Your task to perform on an android device: allow notifications from all sites in the chrome app Image 0: 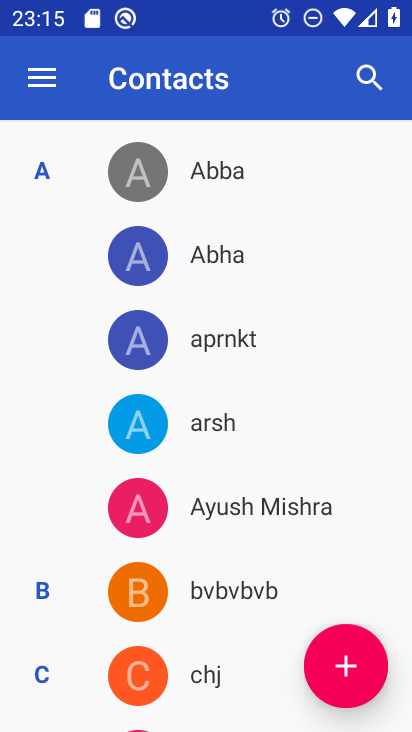
Step 0: press home button
Your task to perform on an android device: allow notifications from all sites in the chrome app Image 1: 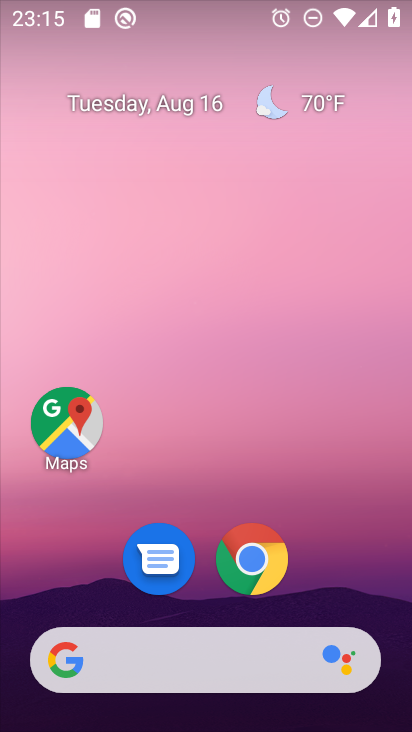
Step 1: click (255, 559)
Your task to perform on an android device: allow notifications from all sites in the chrome app Image 2: 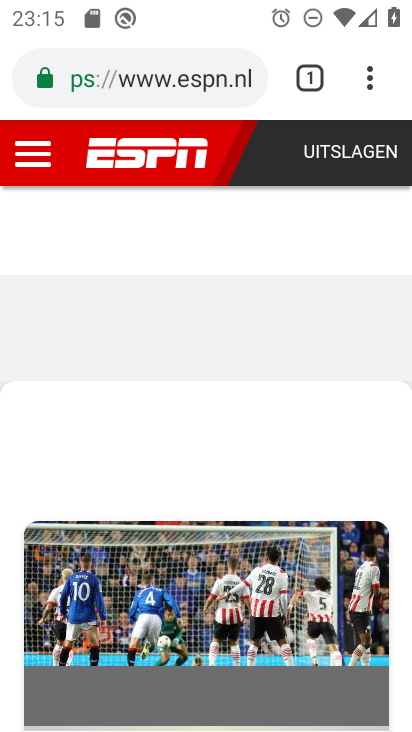
Step 2: click (381, 81)
Your task to perform on an android device: allow notifications from all sites in the chrome app Image 3: 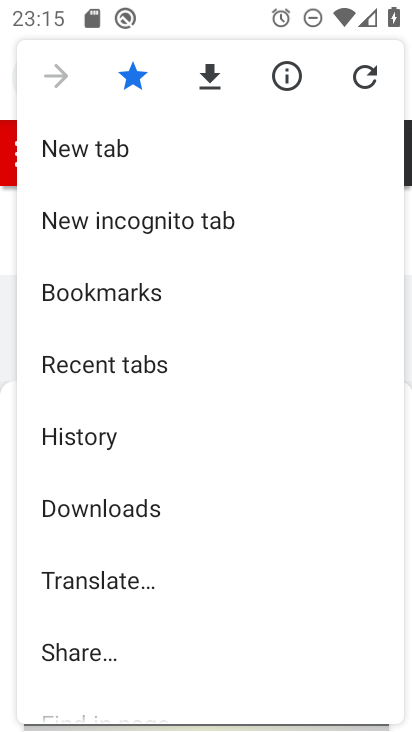
Step 3: drag from (145, 547) to (208, 449)
Your task to perform on an android device: allow notifications from all sites in the chrome app Image 4: 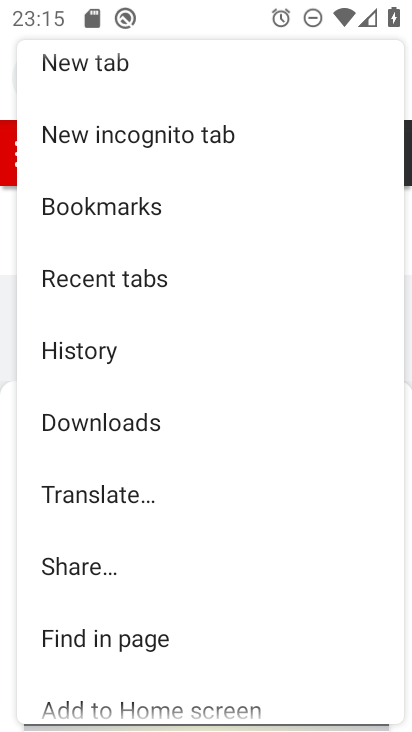
Step 4: drag from (148, 548) to (214, 446)
Your task to perform on an android device: allow notifications from all sites in the chrome app Image 5: 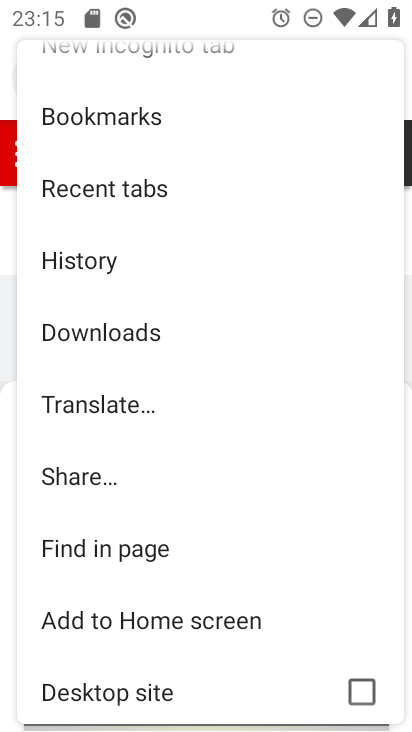
Step 5: drag from (122, 573) to (226, 443)
Your task to perform on an android device: allow notifications from all sites in the chrome app Image 6: 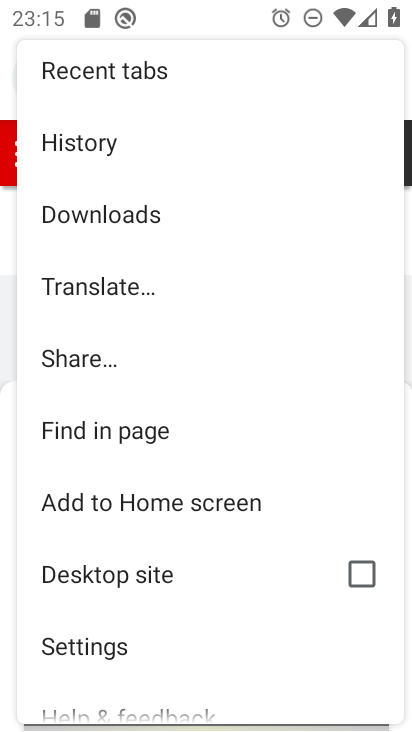
Step 6: drag from (126, 595) to (257, 410)
Your task to perform on an android device: allow notifications from all sites in the chrome app Image 7: 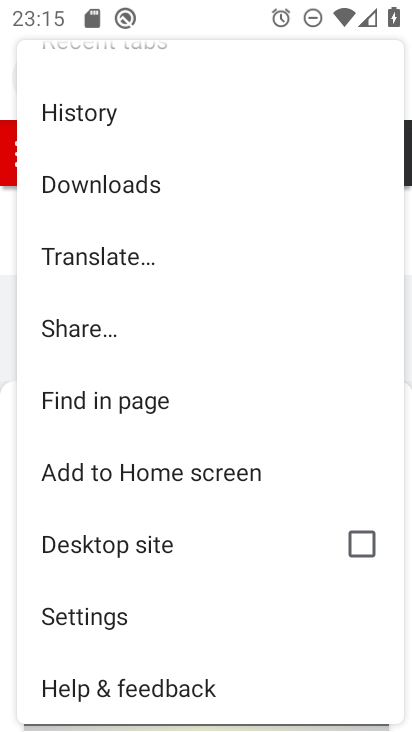
Step 7: click (79, 619)
Your task to perform on an android device: allow notifications from all sites in the chrome app Image 8: 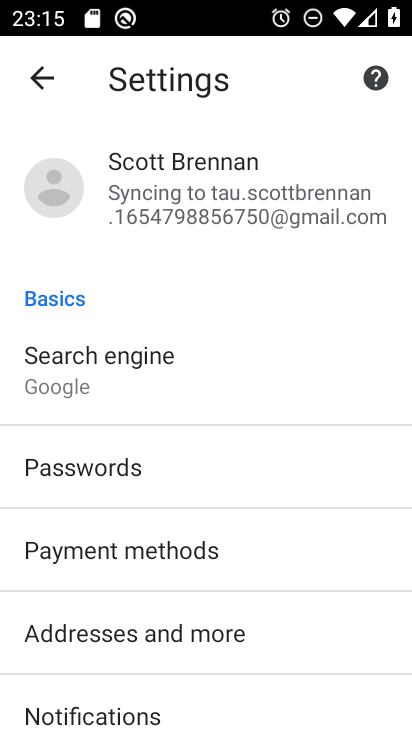
Step 8: drag from (132, 609) to (226, 493)
Your task to perform on an android device: allow notifications from all sites in the chrome app Image 9: 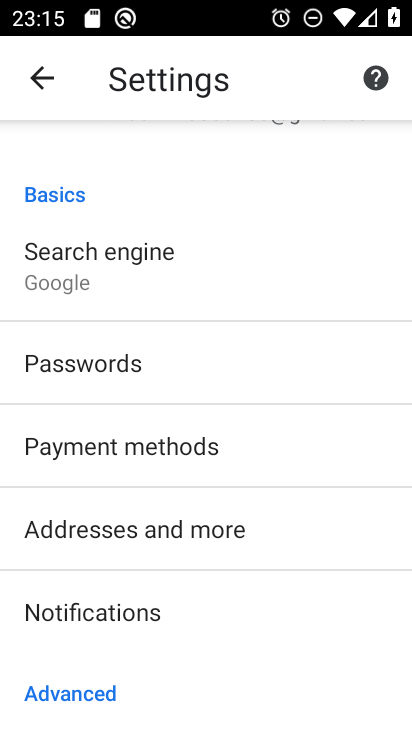
Step 9: click (143, 617)
Your task to perform on an android device: allow notifications from all sites in the chrome app Image 10: 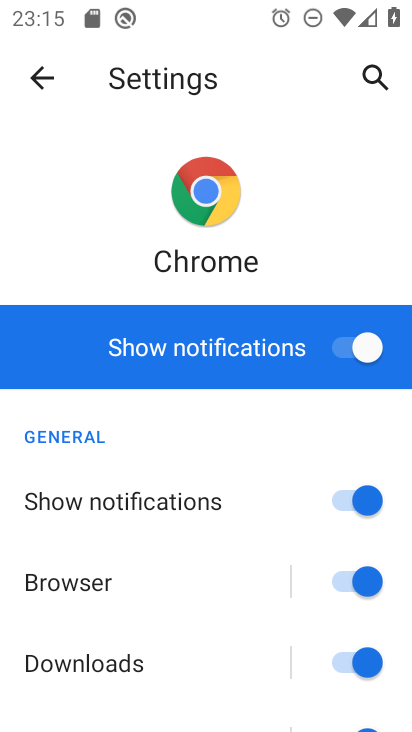
Step 10: task complete